Your task to perform on an android device: Search for a dining table on crateandbarrel.com Image 0: 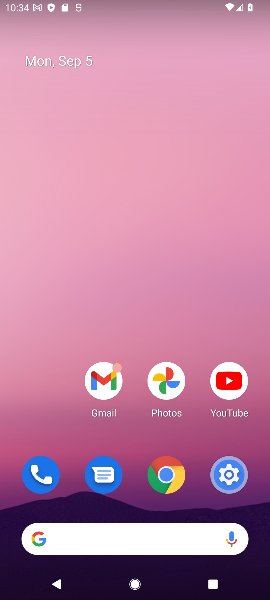
Step 0: click (152, 537)
Your task to perform on an android device: Search for a dining table on crateandbarrel.com Image 1: 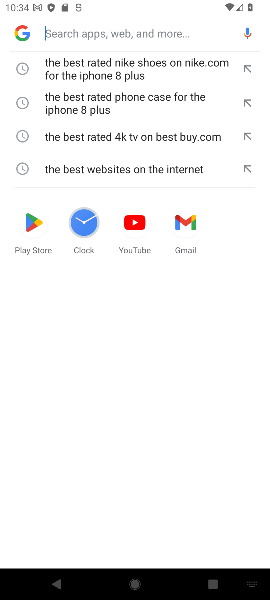
Step 1: type " a dining table on crateandbarrel.com"
Your task to perform on an android device: Search for a dining table on crateandbarrel.com Image 2: 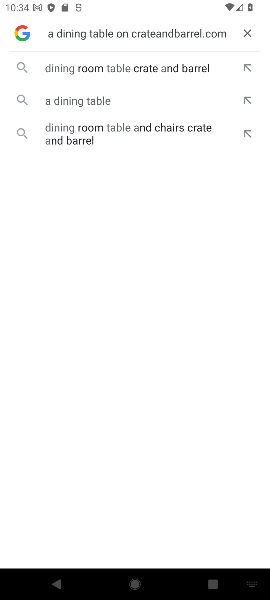
Step 2: click (134, 69)
Your task to perform on an android device: Search for a dining table on crateandbarrel.com Image 3: 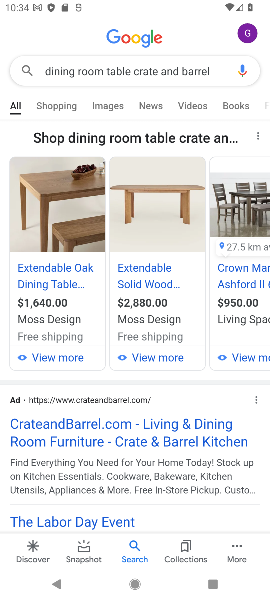
Step 3: task complete